Your task to perform on an android device: Open eBay Image 0: 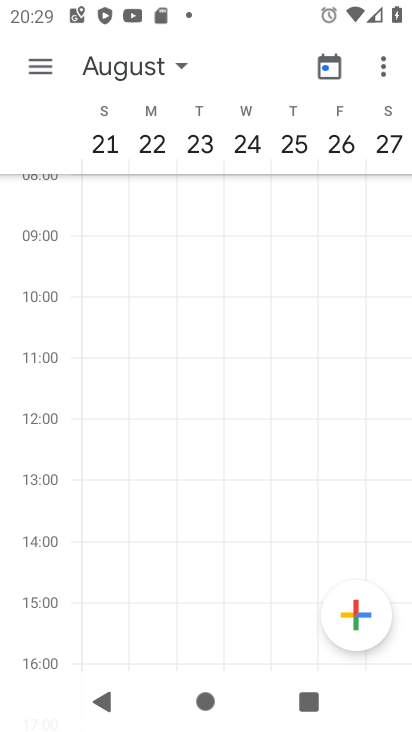
Step 0: press home button
Your task to perform on an android device: Open eBay Image 1: 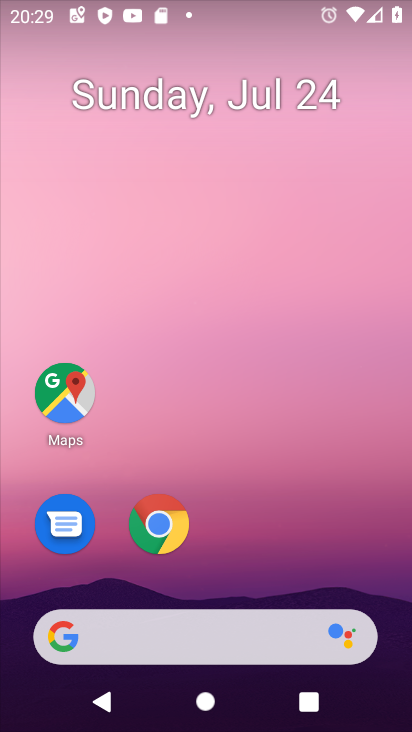
Step 1: click (224, 640)
Your task to perform on an android device: Open eBay Image 2: 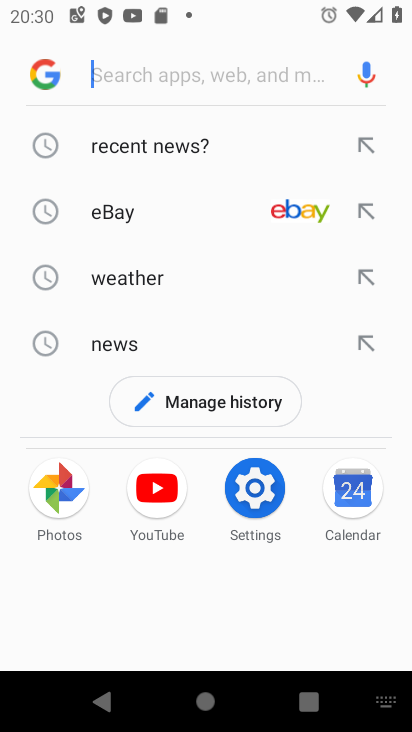
Step 2: click (294, 214)
Your task to perform on an android device: Open eBay Image 3: 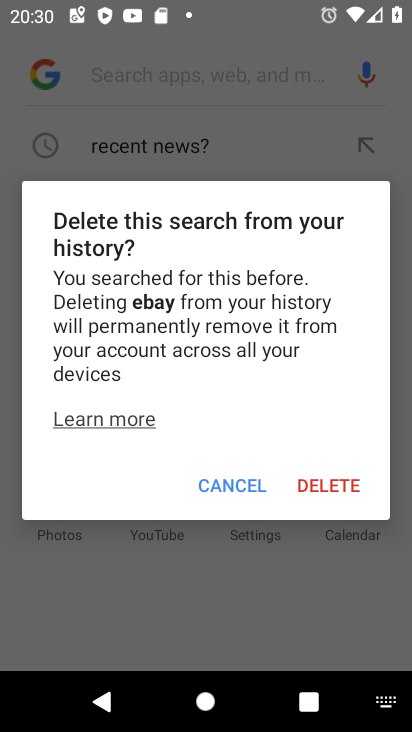
Step 3: click (236, 488)
Your task to perform on an android device: Open eBay Image 4: 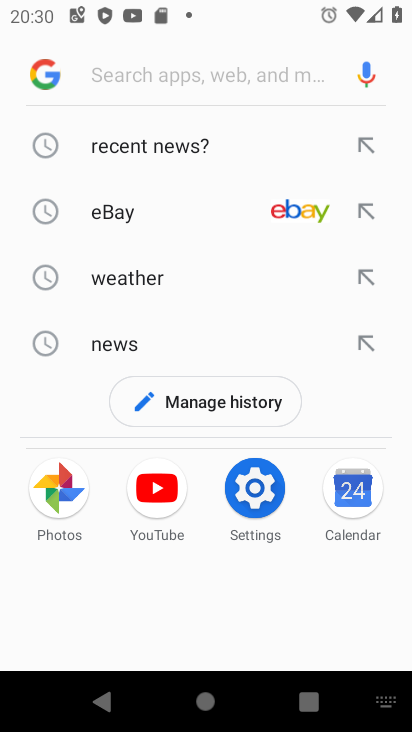
Step 4: click (119, 217)
Your task to perform on an android device: Open eBay Image 5: 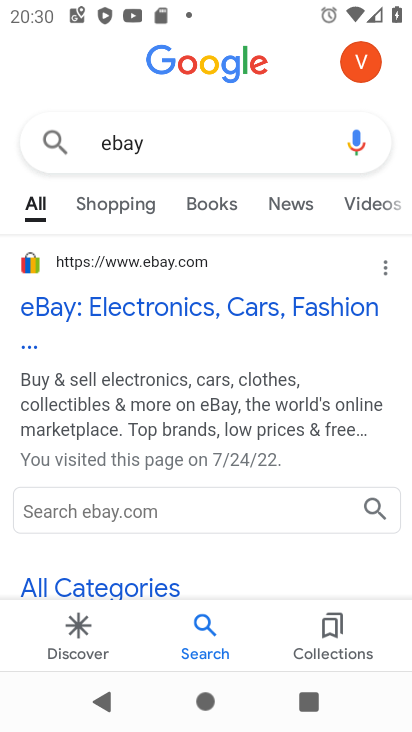
Step 5: click (54, 295)
Your task to perform on an android device: Open eBay Image 6: 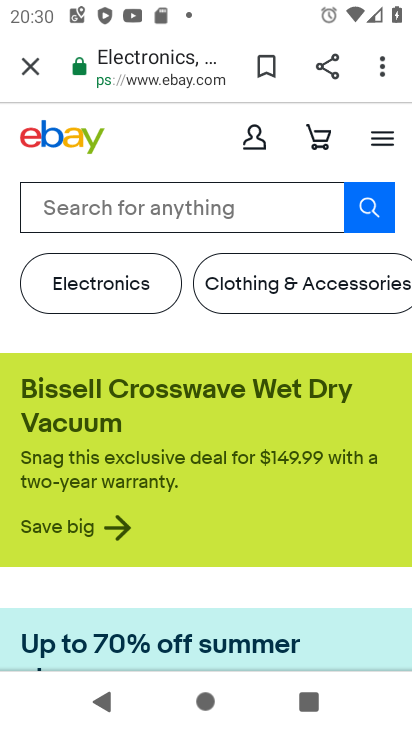
Step 6: task complete